Your task to perform on an android device: turn off data saver in the chrome app Image 0: 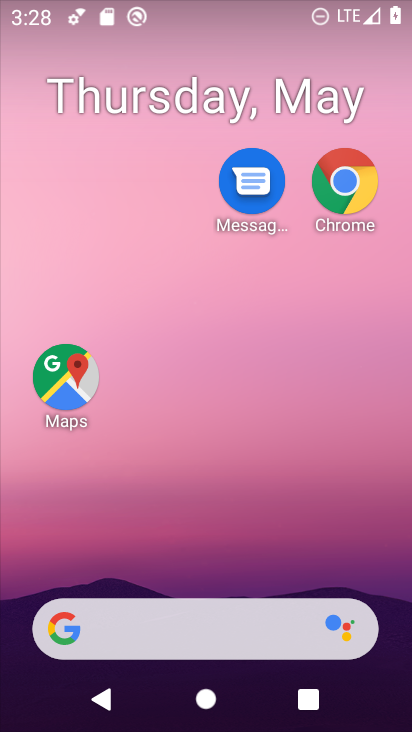
Step 0: drag from (224, 625) to (188, 128)
Your task to perform on an android device: turn off data saver in the chrome app Image 1: 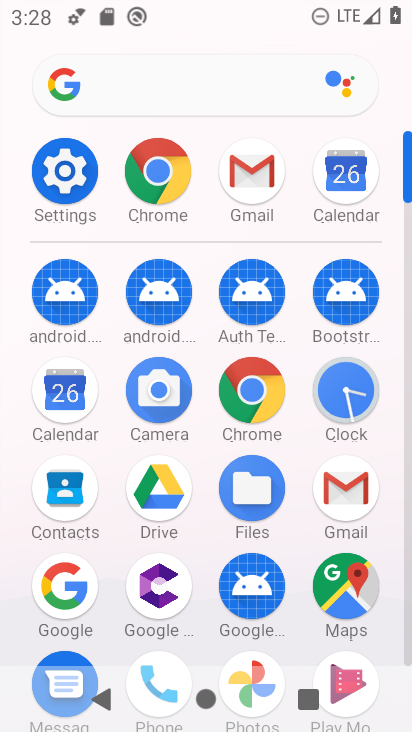
Step 1: click (254, 441)
Your task to perform on an android device: turn off data saver in the chrome app Image 2: 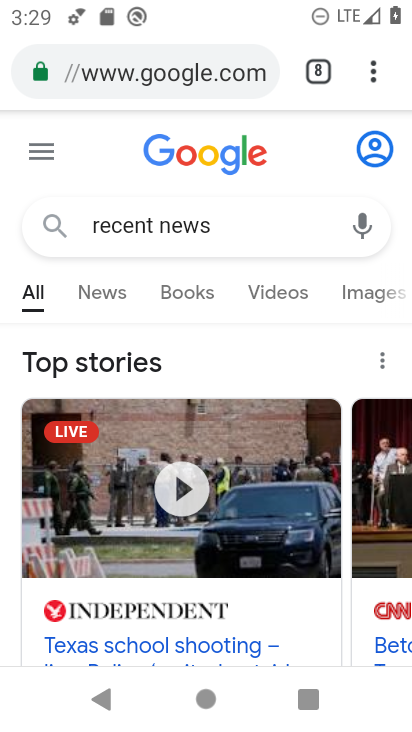
Step 2: click (367, 66)
Your task to perform on an android device: turn off data saver in the chrome app Image 3: 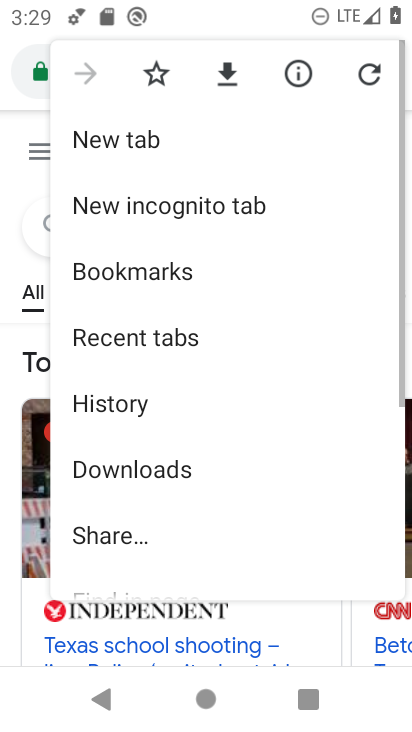
Step 3: drag from (172, 475) to (200, 53)
Your task to perform on an android device: turn off data saver in the chrome app Image 4: 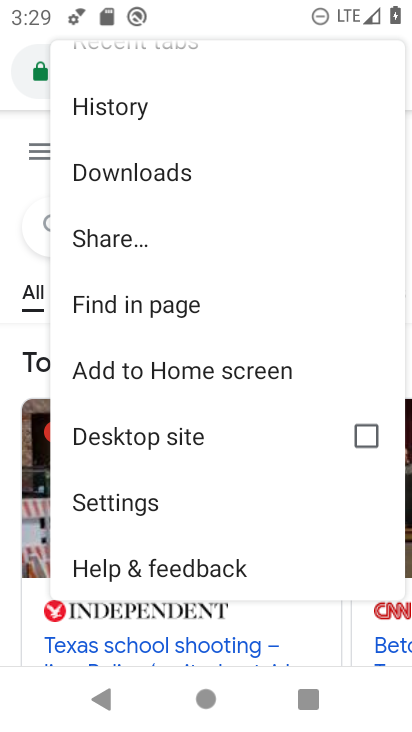
Step 4: click (140, 491)
Your task to perform on an android device: turn off data saver in the chrome app Image 5: 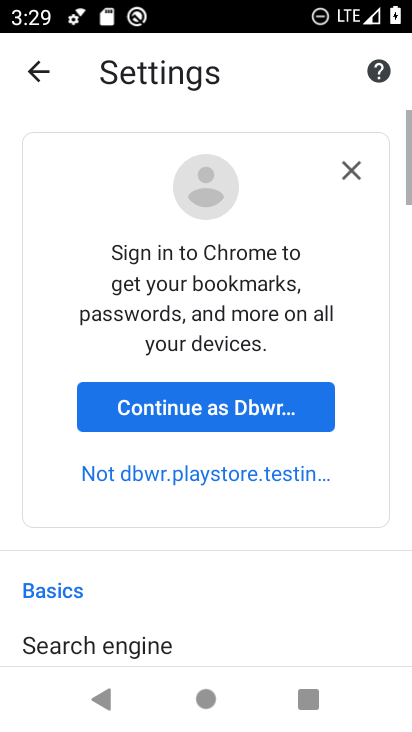
Step 5: drag from (310, 583) to (339, 83)
Your task to perform on an android device: turn off data saver in the chrome app Image 6: 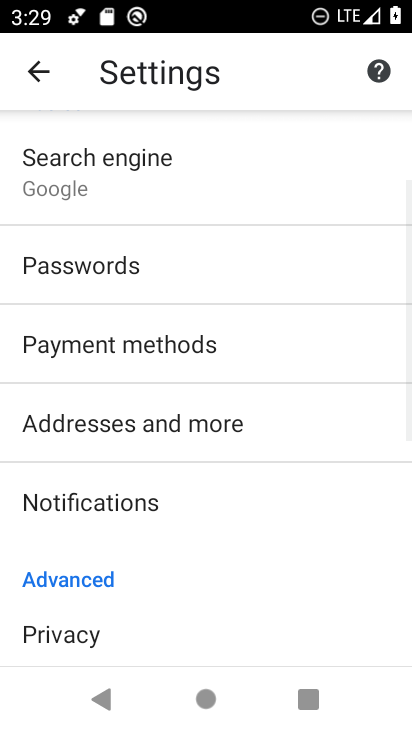
Step 6: drag from (250, 569) to (281, 142)
Your task to perform on an android device: turn off data saver in the chrome app Image 7: 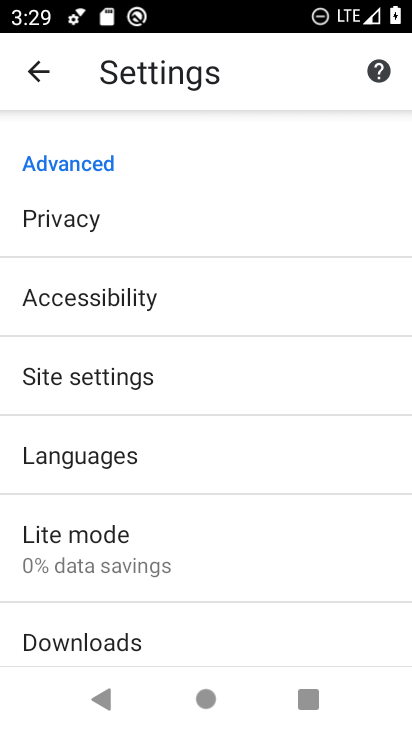
Step 7: click (125, 530)
Your task to perform on an android device: turn off data saver in the chrome app Image 8: 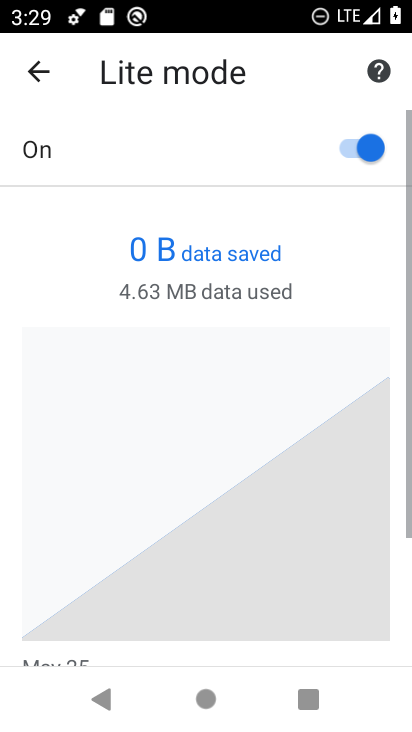
Step 8: click (363, 146)
Your task to perform on an android device: turn off data saver in the chrome app Image 9: 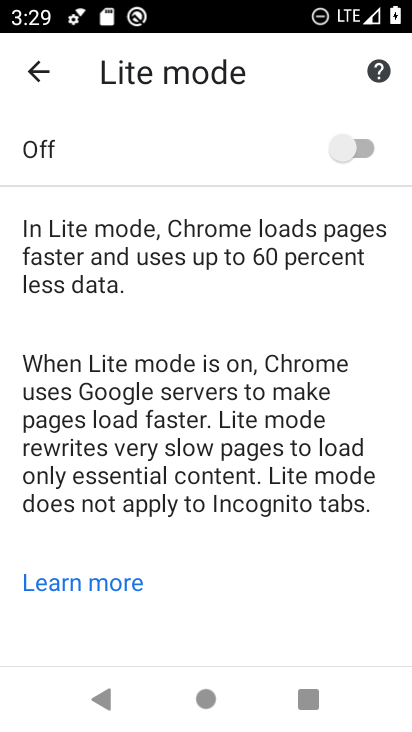
Step 9: task complete